Your task to perform on an android device: Open internet settings Image 0: 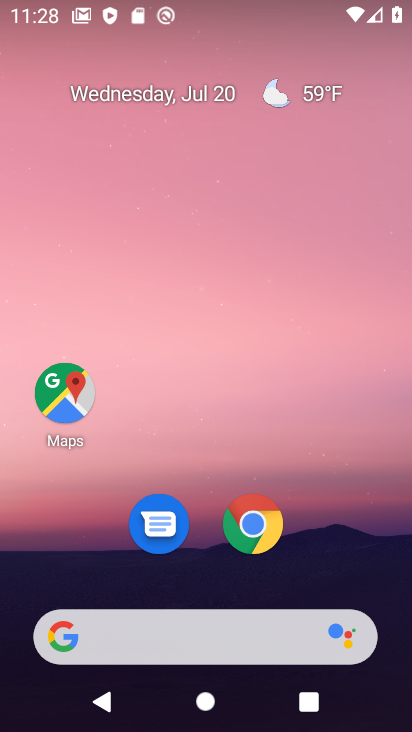
Step 0: drag from (205, 574) to (297, 56)
Your task to perform on an android device: Open internet settings Image 1: 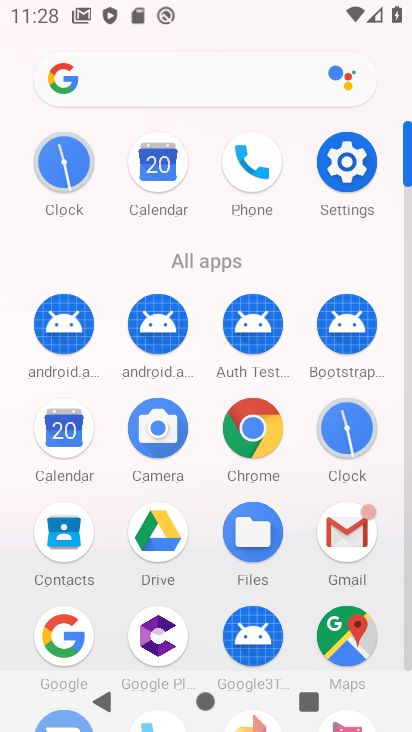
Step 1: click (349, 176)
Your task to perform on an android device: Open internet settings Image 2: 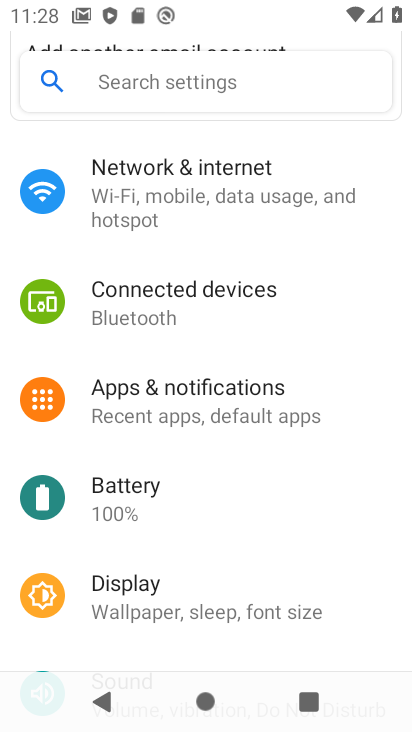
Step 2: drag from (333, 152) to (234, 575)
Your task to perform on an android device: Open internet settings Image 3: 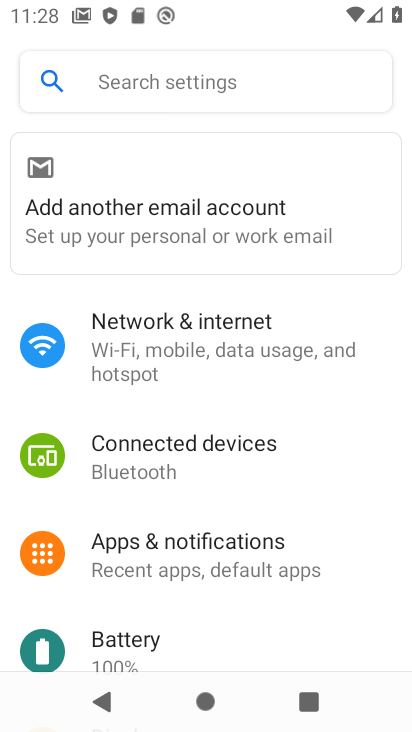
Step 3: click (183, 337)
Your task to perform on an android device: Open internet settings Image 4: 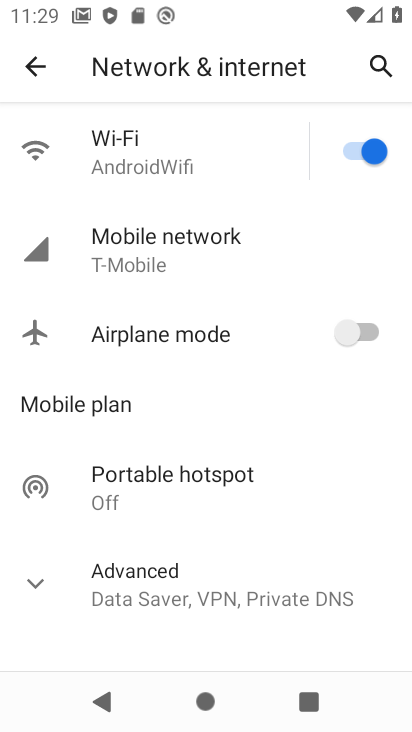
Step 4: task complete